Your task to perform on an android device: Go to Wikipedia Image 0: 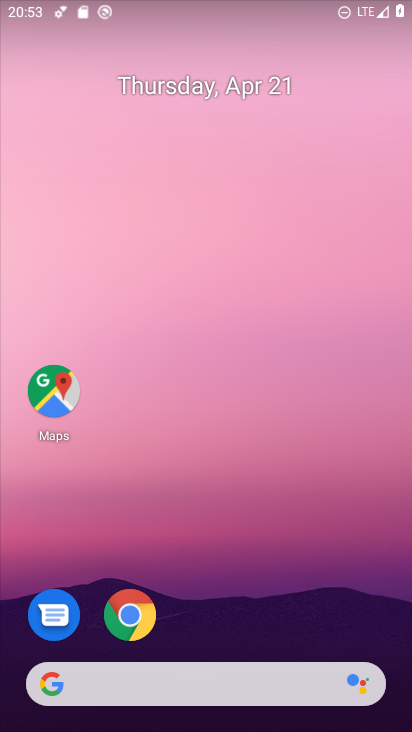
Step 0: drag from (285, 452) to (304, 63)
Your task to perform on an android device: Go to Wikipedia Image 1: 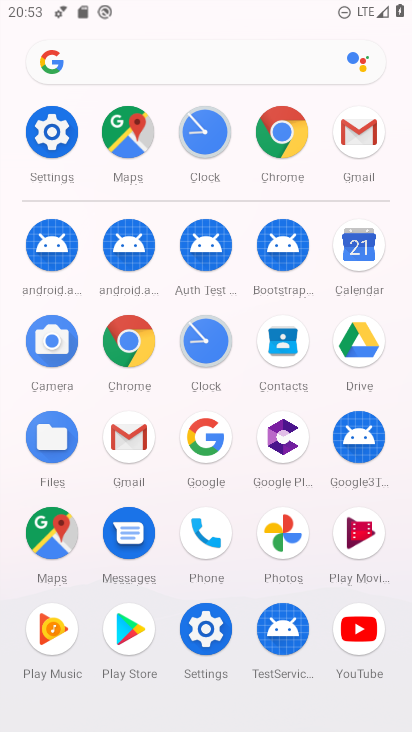
Step 1: click (129, 329)
Your task to perform on an android device: Go to Wikipedia Image 2: 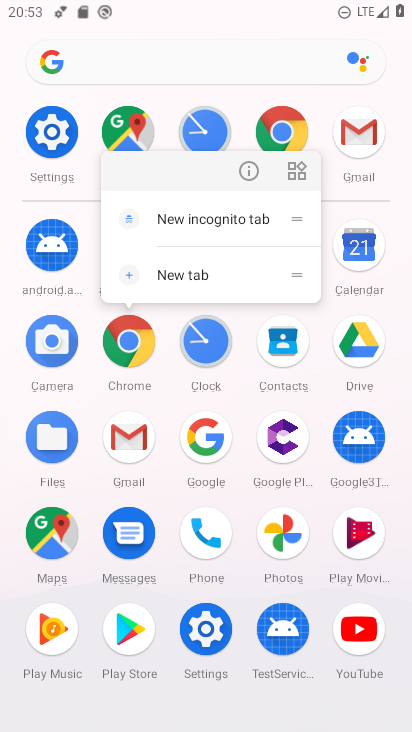
Step 2: click (238, 167)
Your task to perform on an android device: Go to Wikipedia Image 3: 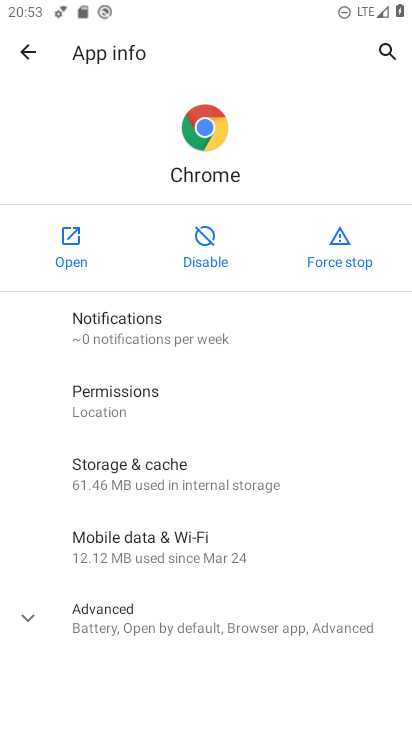
Step 3: click (79, 253)
Your task to perform on an android device: Go to Wikipedia Image 4: 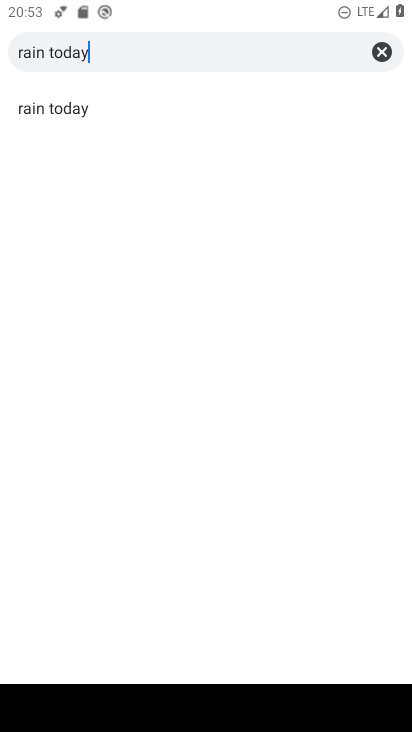
Step 4: click (385, 45)
Your task to perform on an android device: Go to Wikipedia Image 5: 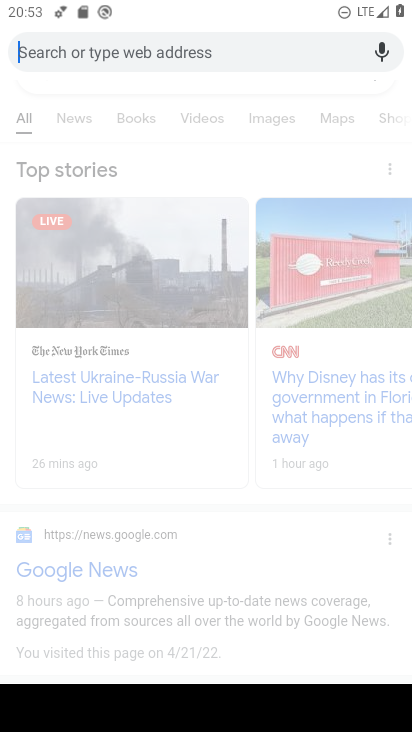
Step 5: press back button
Your task to perform on an android device: Go to Wikipedia Image 6: 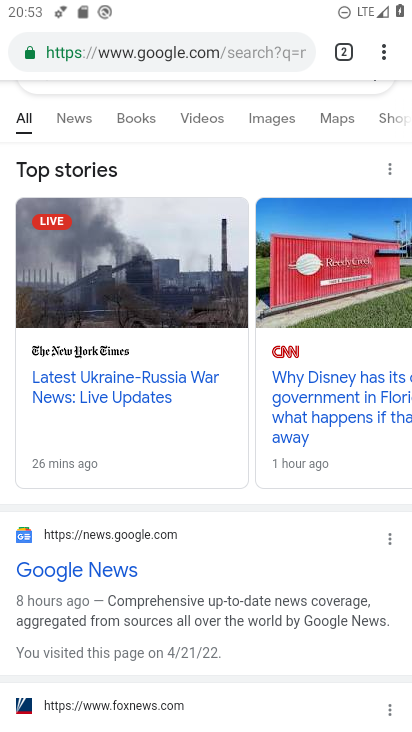
Step 6: drag from (198, 622) to (333, 72)
Your task to perform on an android device: Go to Wikipedia Image 7: 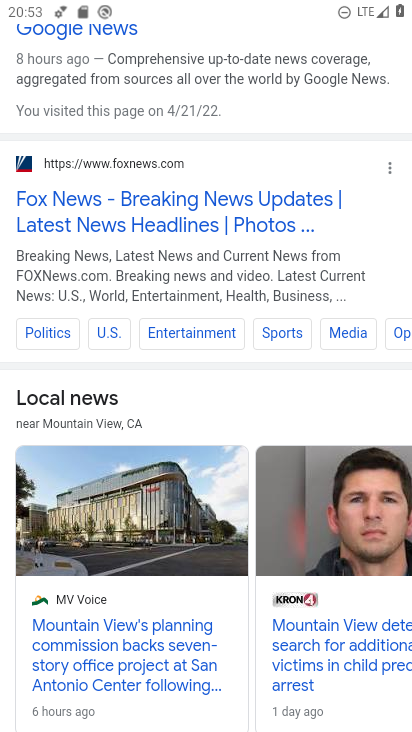
Step 7: drag from (245, 111) to (309, 547)
Your task to perform on an android device: Go to Wikipedia Image 8: 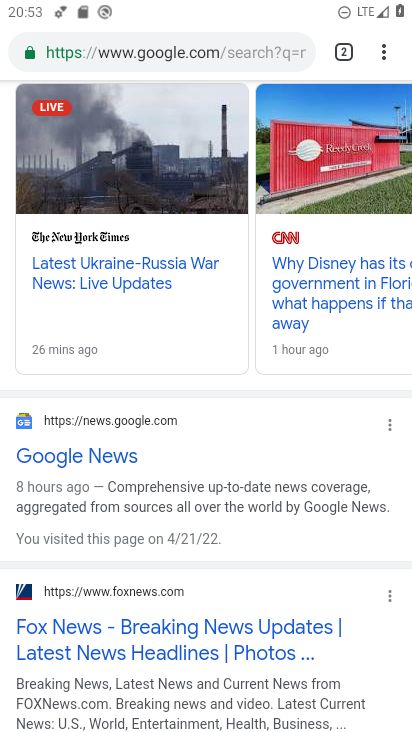
Step 8: click (178, 49)
Your task to perform on an android device: Go to Wikipedia Image 9: 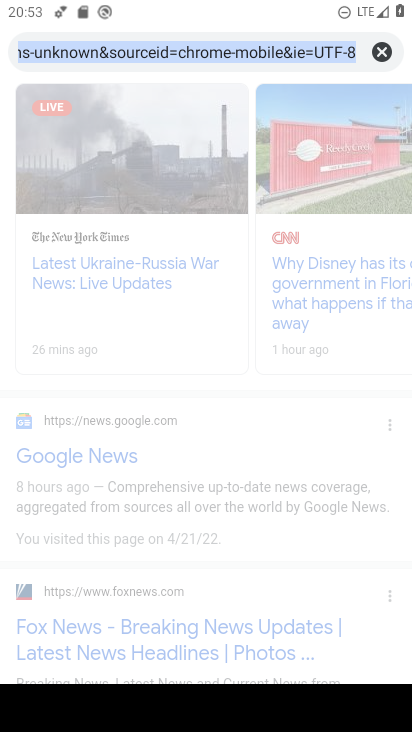
Step 9: click (381, 50)
Your task to perform on an android device: Go to Wikipedia Image 10: 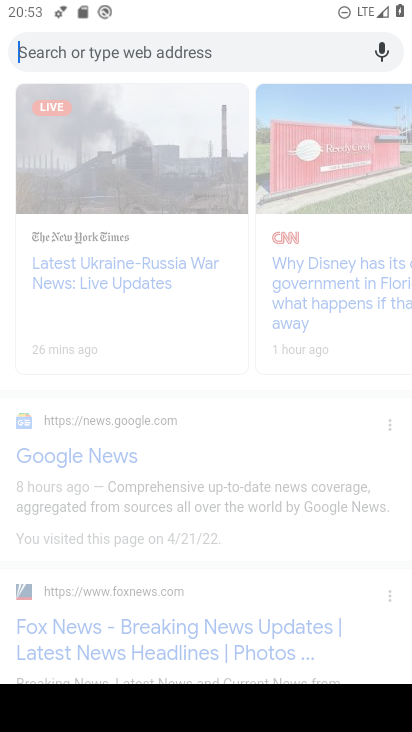
Step 10: type "wikipedia"
Your task to perform on an android device: Go to Wikipedia Image 11: 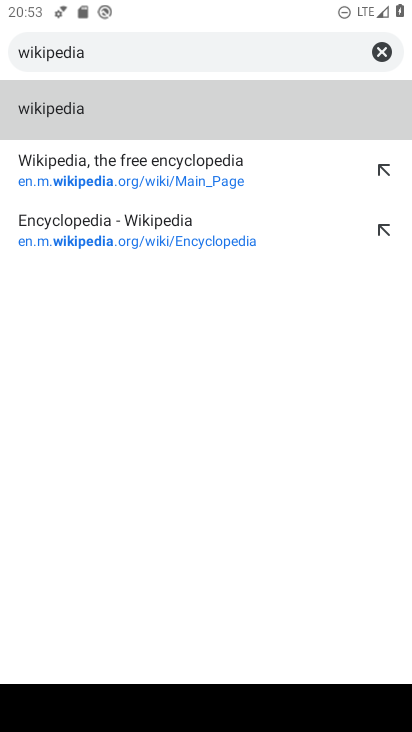
Step 11: click (73, 97)
Your task to perform on an android device: Go to Wikipedia Image 12: 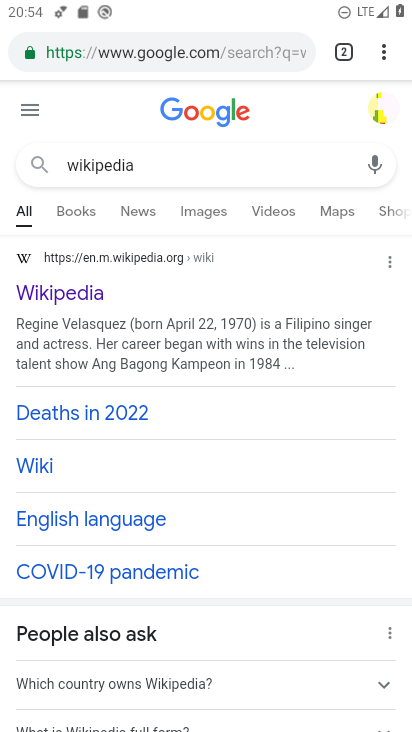
Step 12: drag from (221, 563) to (261, 36)
Your task to perform on an android device: Go to Wikipedia Image 13: 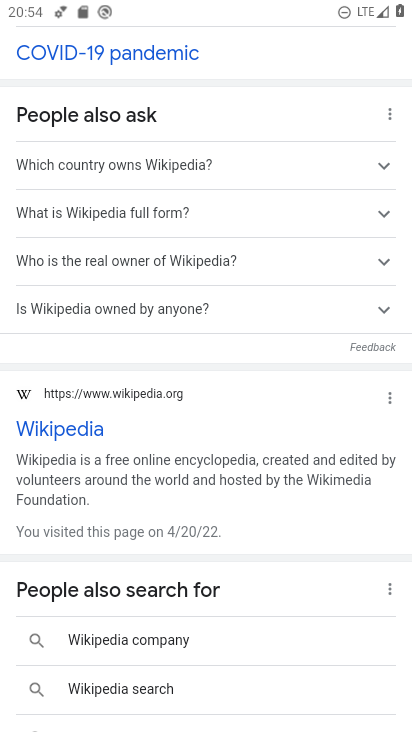
Step 13: drag from (247, 548) to (375, 104)
Your task to perform on an android device: Go to Wikipedia Image 14: 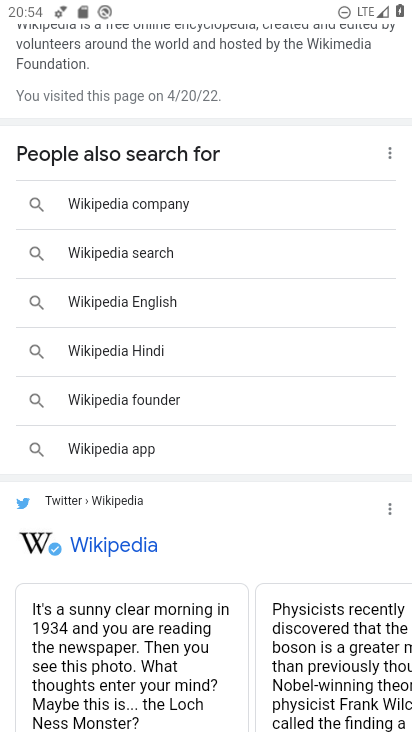
Step 14: drag from (205, 564) to (280, 152)
Your task to perform on an android device: Go to Wikipedia Image 15: 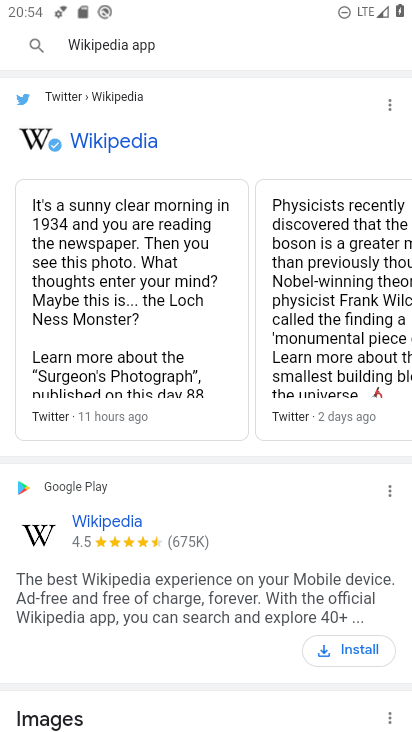
Step 15: drag from (231, 404) to (361, 226)
Your task to perform on an android device: Go to Wikipedia Image 16: 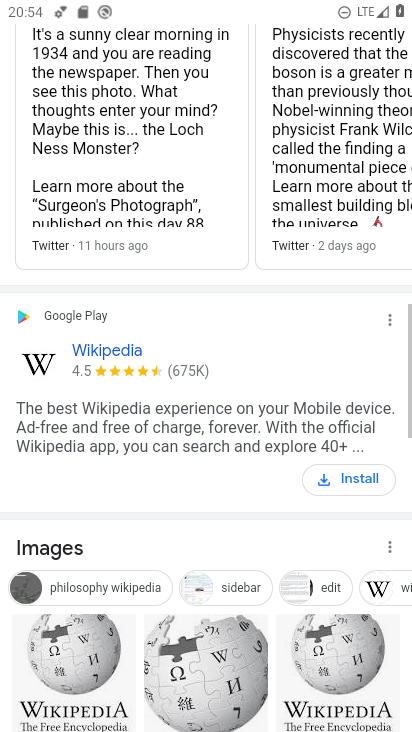
Step 16: drag from (197, 386) to (336, 688)
Your task to perform on an android device: Go to Wikipedia Image 17: 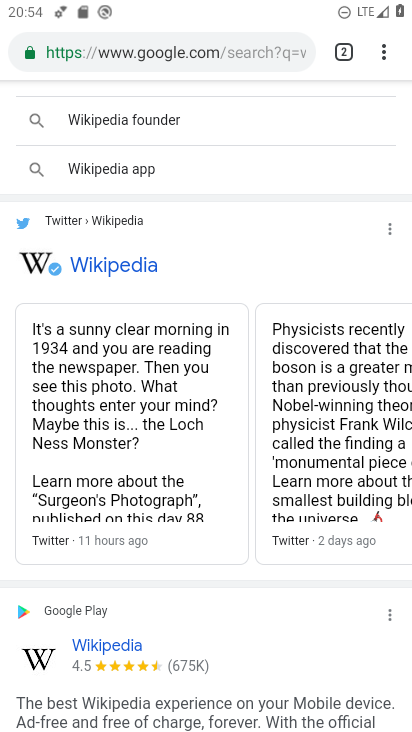
Step 17: click (80, 268)
Your task to perform on an android device: Go to Wikipedia Image 18: 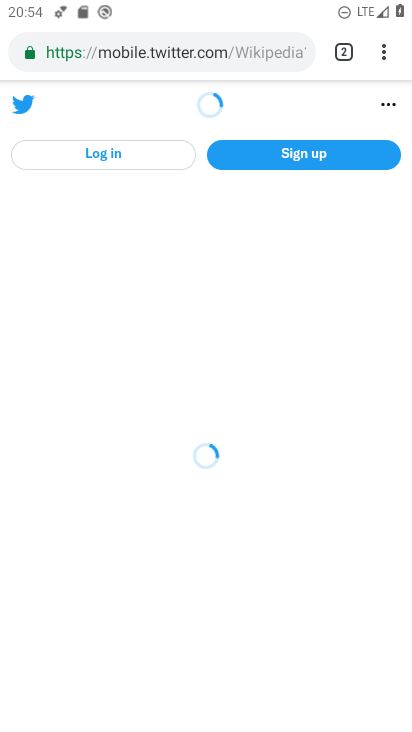
Step 18: task complete